Your task to perform on an android device: open device folders in google photos Image 0: 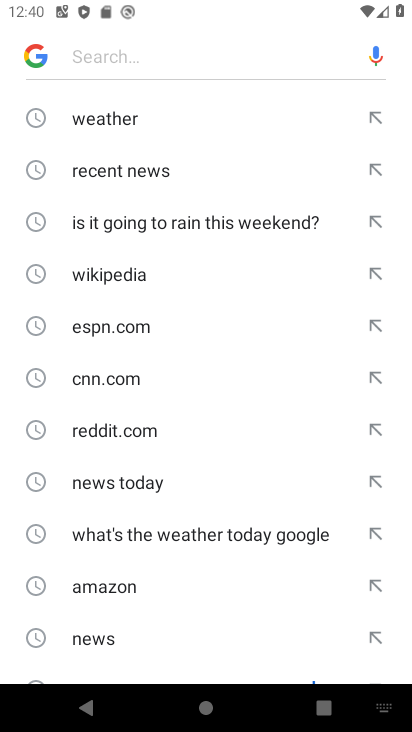
Step 0: press home button
Your task to perform on an android device: open device folders in google photos Image 1: 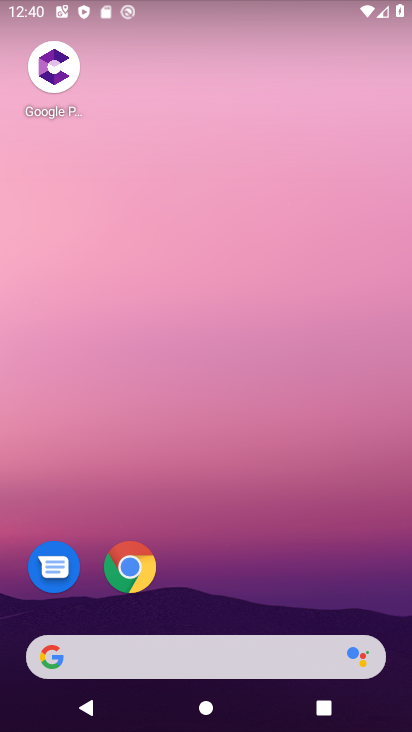
Step 1: drag from (177, 545) to (196, 13)
Your task to perform on an android device: open device folders in google photos Image 2: 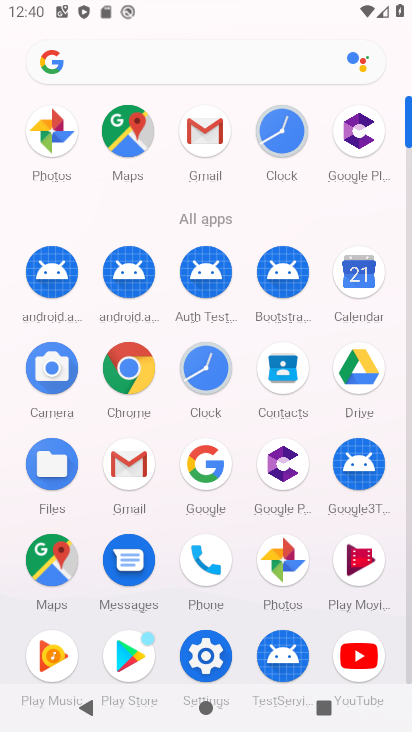
Step 2: click (35, 137)
Your task to perform on an android device: open device folders in google photos Image 3: 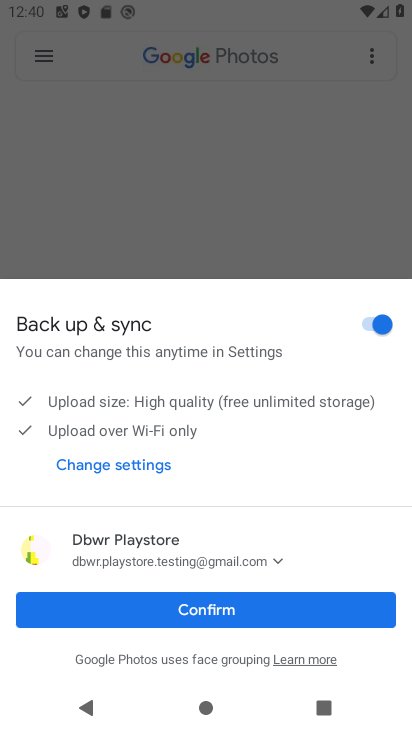
Step 3: click (153, 655)
Your task to perform on an android device: open device folders in google photos Image 4: 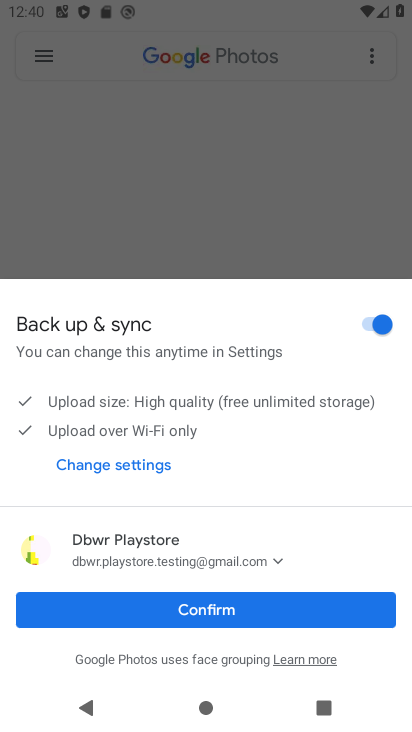
Step 4: click (158, 620)
Your task to perform on an android device: open device folders in google photos Image 5: 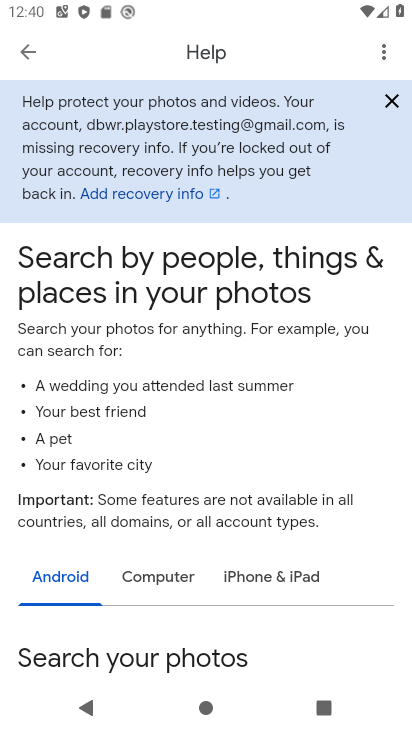
Step 5: press back button
Your task to perform on an android device: open device folders in google photos Image 6: 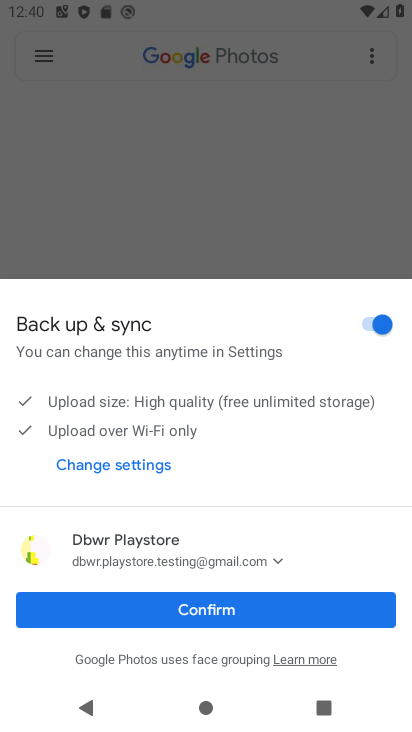
Step 6: click (199, 619)
Your task to perform on an android device: open device folders in google photos Image 7: 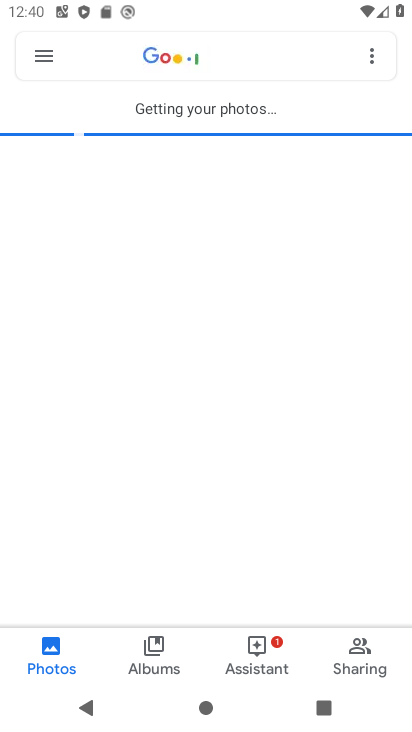
Step 7: click (168, 646)
Your task to perform on an android device: open device folders in google photos Image 8: 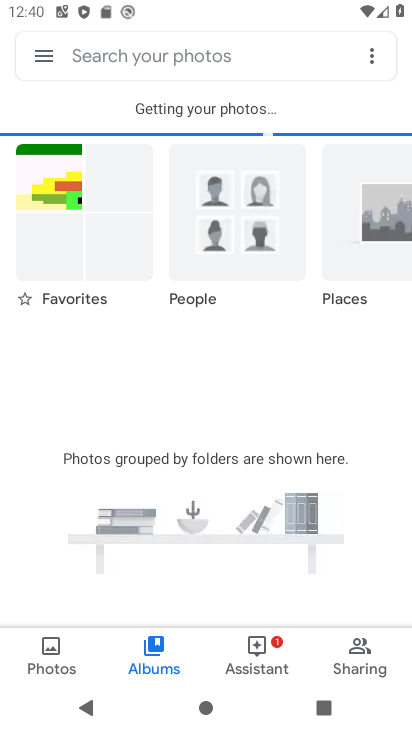
Step 8: task complete